Your task to perform on an android device: check storage Image 0: 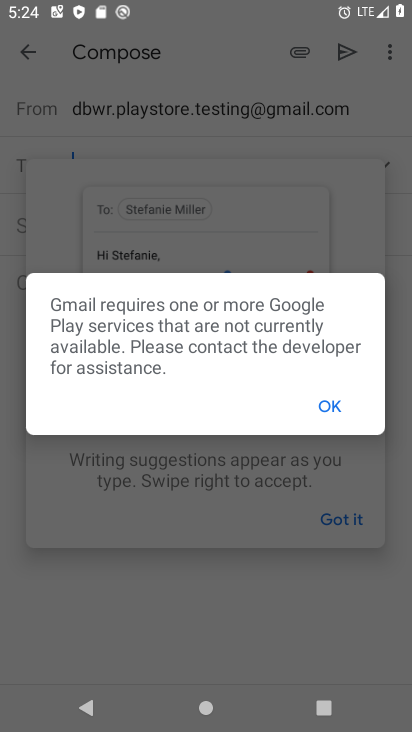
Step 0: press home button
Your task to perform on an android device: check storage Image 1: 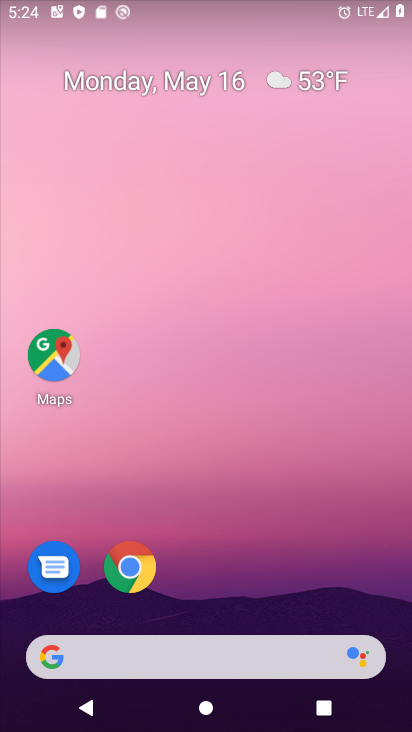
Step 1: drag from (232, 662) to (242, 12)
Your task to perform on an android device: check storage Image 2: 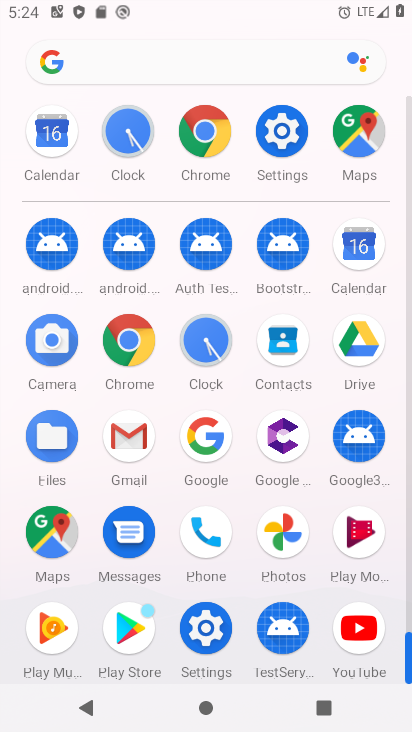
Step 2: click (285, 152)
Your task to perform on an android device: check storage Image 3: 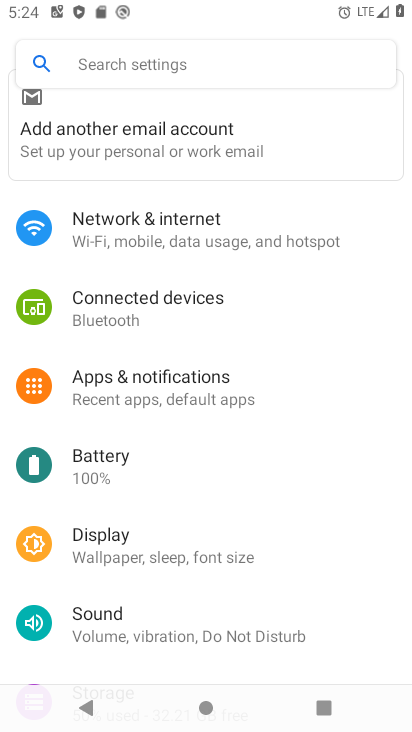
Step 3: drag from (285, 152) to (330, 508)
Your task to perform on an android device: check storage Image 4: 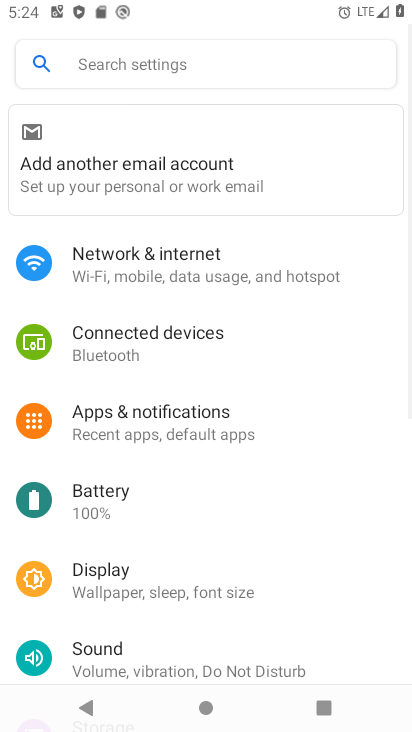
Step 4: drag from (293, 653) to (318, 138)
Your task to perform on an android device: check storage Image 5: 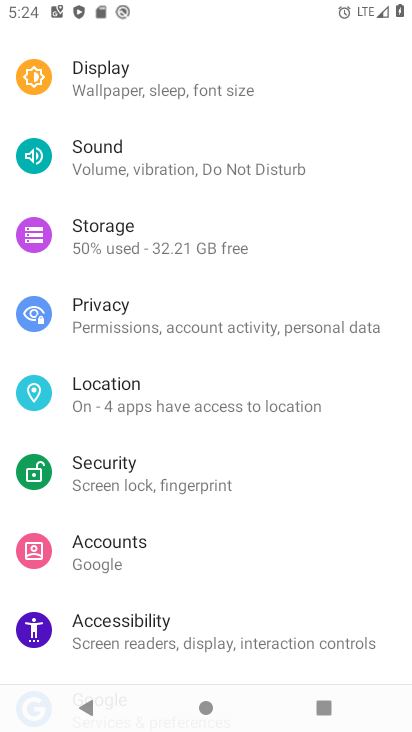
Step 5: click (246, 242)
Your task to perform on an android device: check storage Image 6: 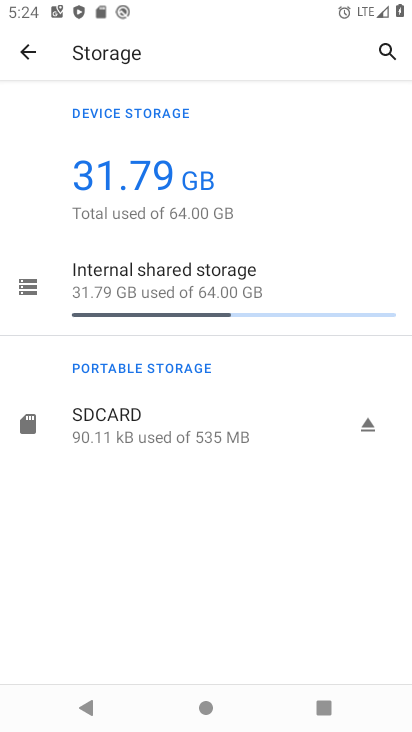
Step 6: task complete